Your task to perform on an android device: move a message to another label in the gmail app Image 0: 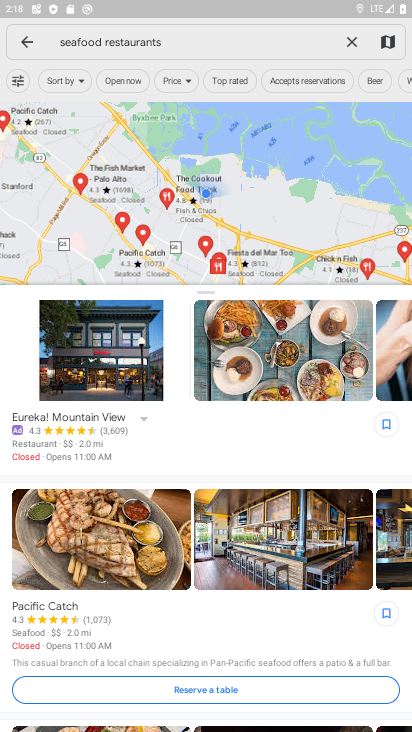
Step 0: press home button
Your task to perform on an android device: move a message to another label in the gmail app Image 1: 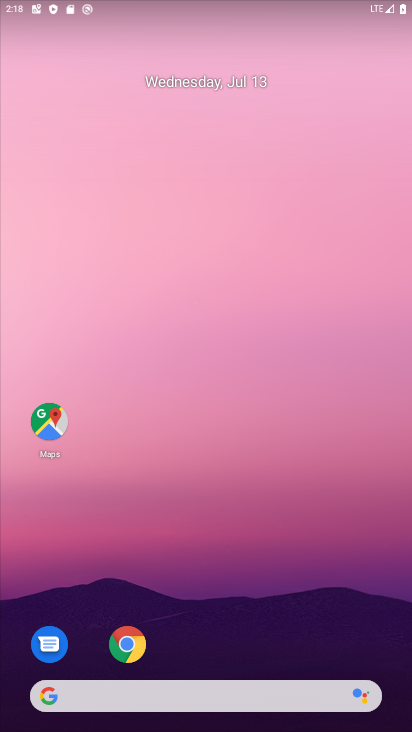
Step 1: drag from (340, 630) to (284, 82)
Your task to perform on an android device: move a message to another label in the gmail app Image 2: 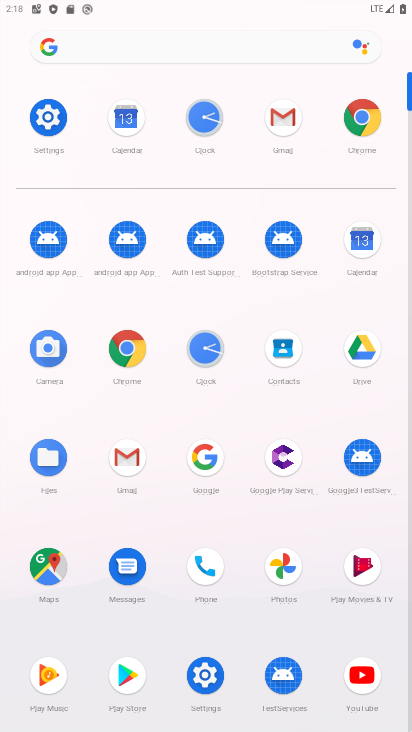
Step 2: click (273, 121)
Your task to perform on an android device: move a message to another label in the gmail app Image 3: 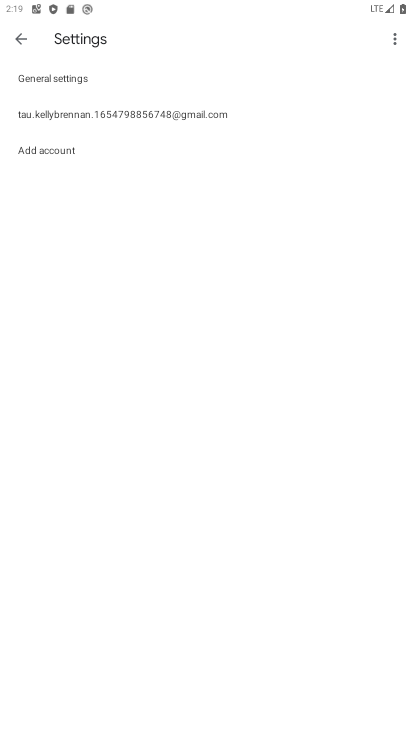
Step 3: click (24, 31)
Your task to perform on an android device: move a message to another label in the gmail app Image 4: 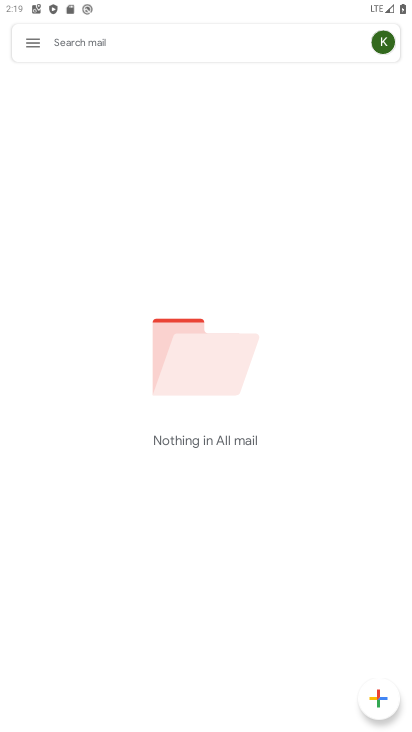
Step 4: click (35, 45)
Your task to perform on an android device: move a message to another label in the gmail app Image 5: 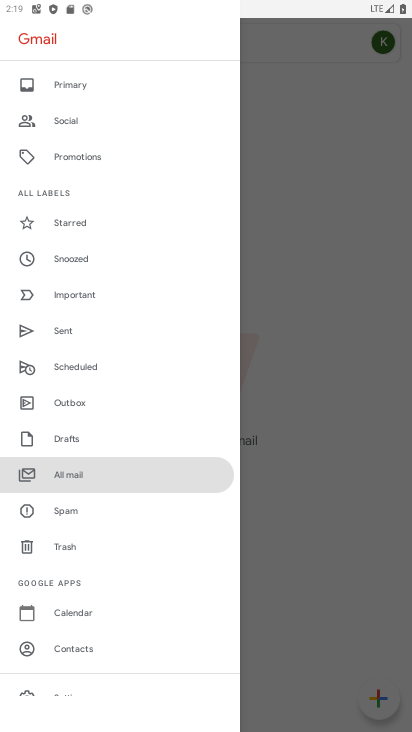
Step 5: click (100, 471)
Your task to perform on an android device: move a message to another label in the gmail app Image 6: 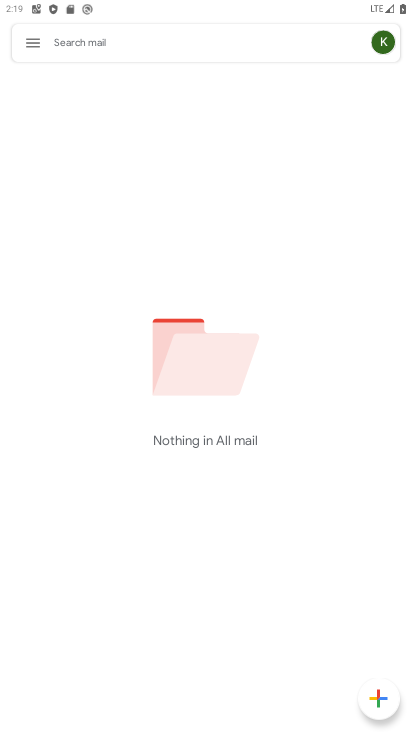
Step 6: task complete